Your task to perform on an android device: Show me popular games on the Play Store Image 0: 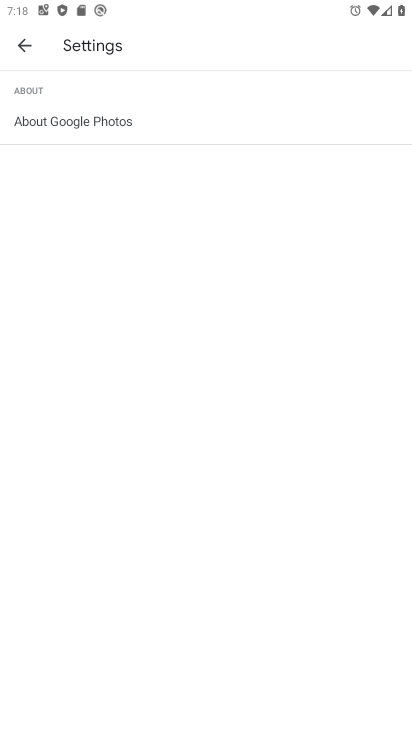
Step 0: press home button
Your task to perform on an android device: Show me popular games on the Play Store Image 1: 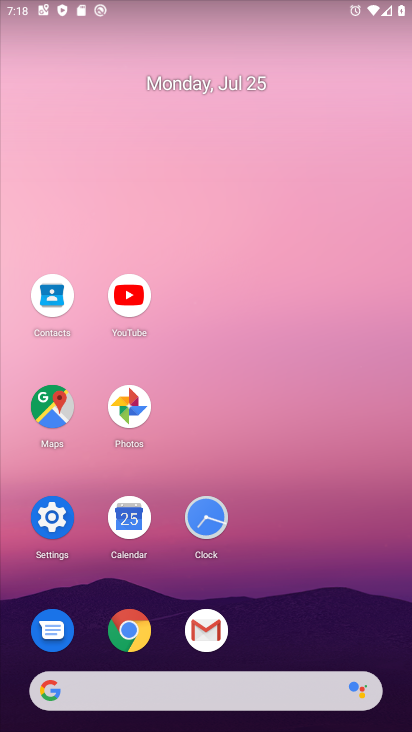
Step 1: drag from (307, 584) to (275, 149)
Your task to perform on an android device: Show me popular games on the Play Store Image 2: 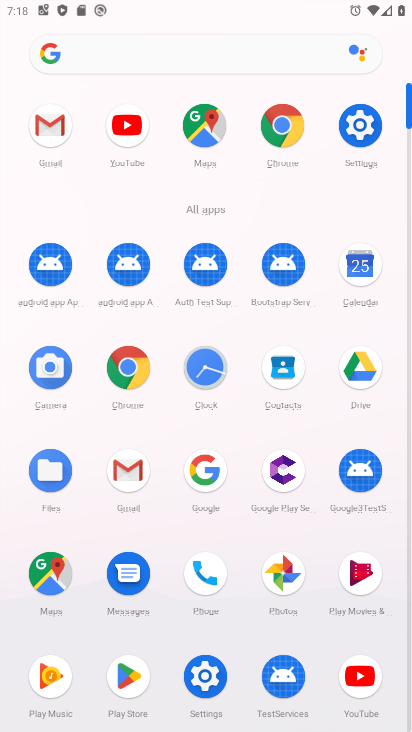
Step 2: click (123, 688)
Your task to perform on an android device: Show me popular games on the Play Store Image 3: 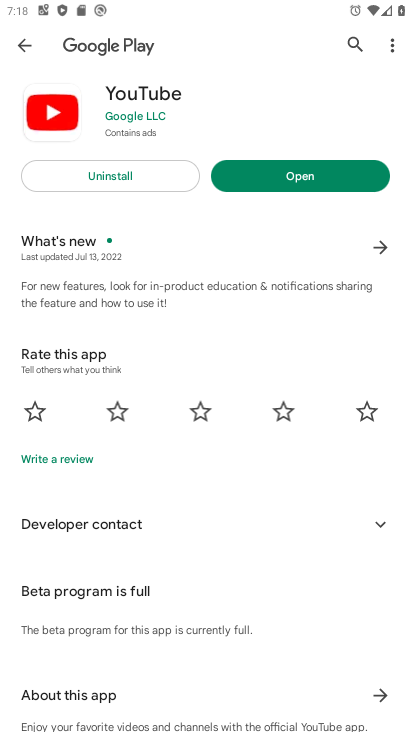
Step 3: click (19, 46)
Your task to perform on an android device: Show me popular games on the Play Store Image 4: 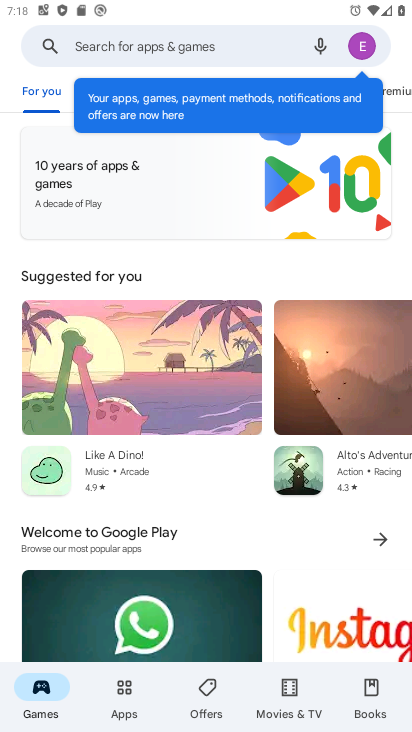
Step 4: task complete